Your task to perform on an android device: turn on javascript in the chrome app Image 0: 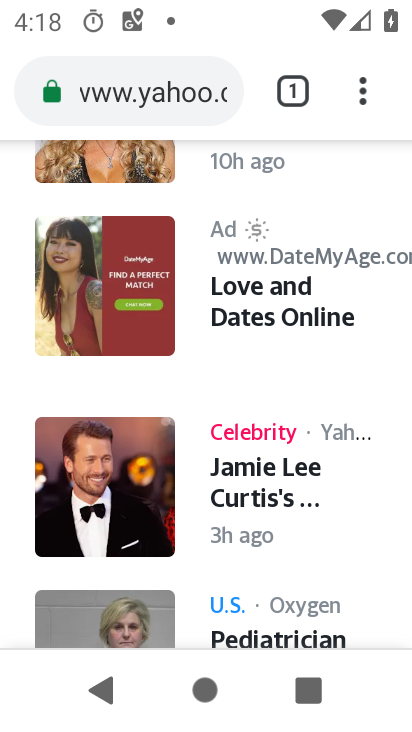
Step 0: press home button
Your task to perform on an android device: turn on javascript in the chrome app Image 1: 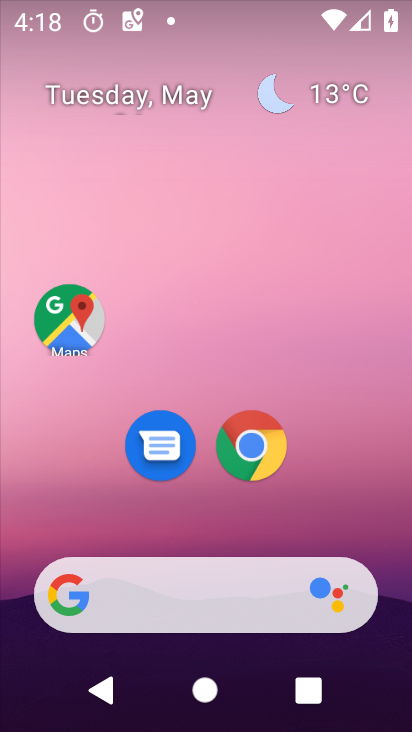
Step 1: click (247, 436)
Your task to perform on an android device: turn on javascript in the chrome app Image 2: 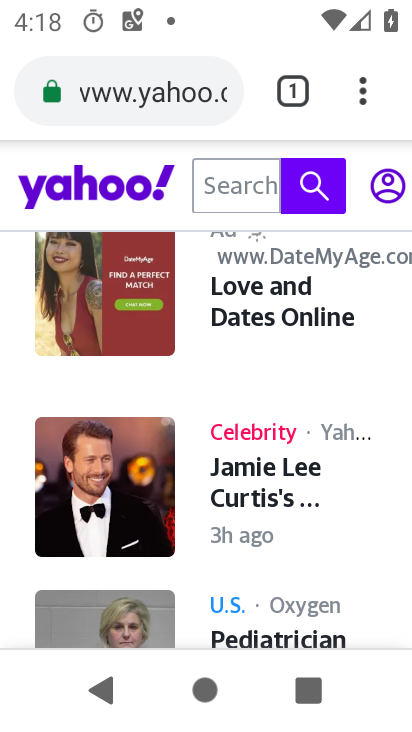
Step 2: click (368, 89)
Your task to perform on an android device: turn on javascript in the chrome app Image 3: 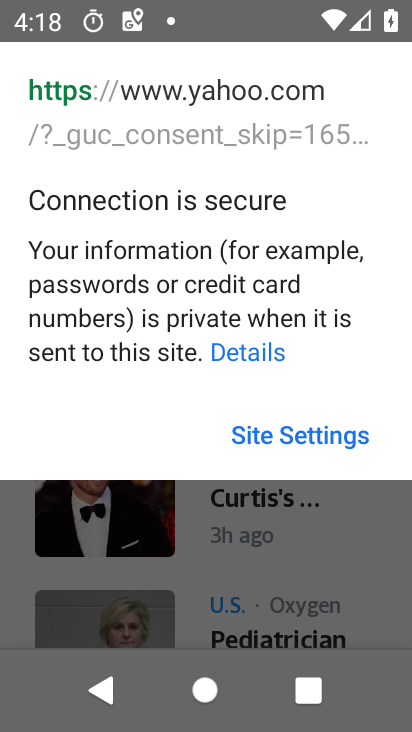
Step 3: click (185, 590)
Your task to perform on an android device: turn on javascript in the chrome app Image 4: 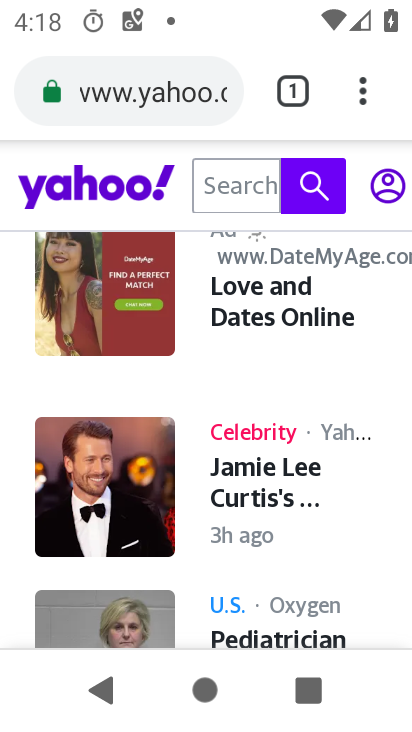
Step 4: click (360, 90)
Your task to perform on an android device: turn on javascript in the chrome app Image 5: 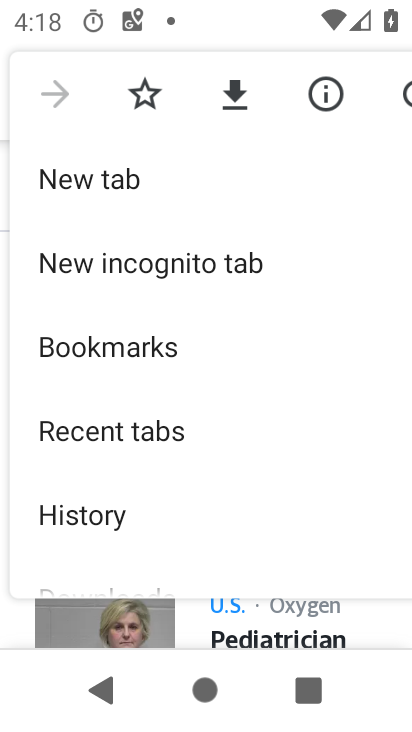
Step 5: drag from (142, 530) to (143, 99)
Your task to perform on an android device: turn on javascript in the chrome app Image 6: 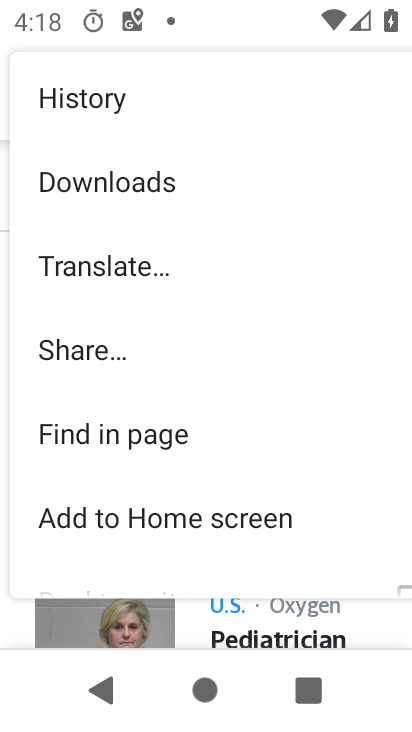
Step 6: drag from (220, 508) to (250, 138)
Your task to perform on an android device: turn on javascript in the chrome app Image 7: 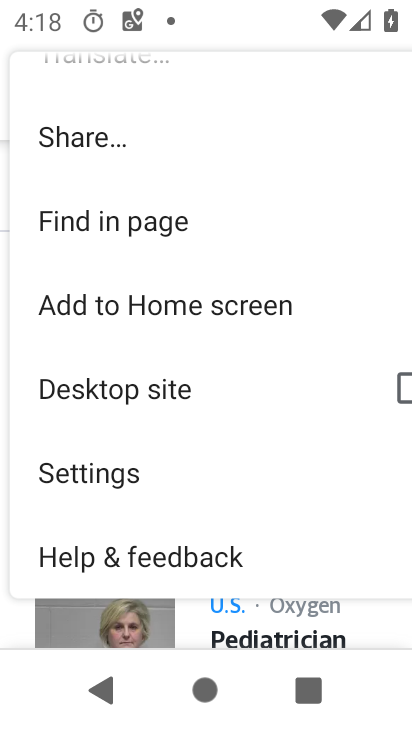
Step 7: click (152, 474)
Your task to perform on an android device: turn on javascript in the chrome app Image 8: 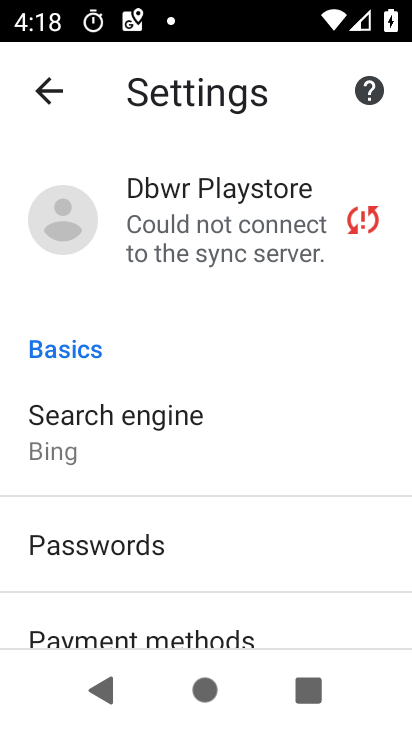
Step 8: drag from (203, 604) to (190, 340)
Your task to perform on an android device: turn on javascript in the chrome app Image 9: 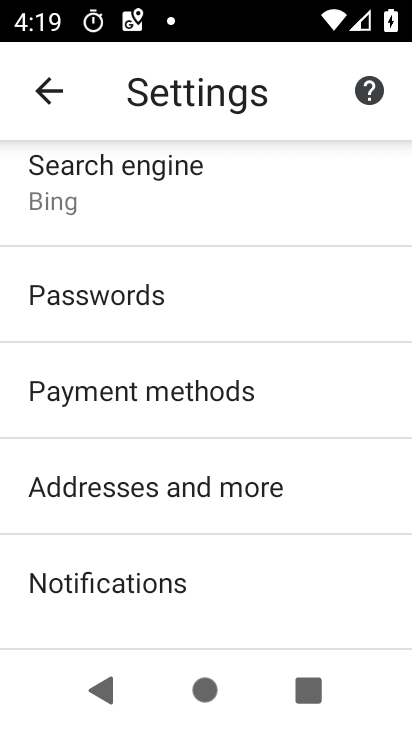
Step 9: drag from (203, 587) to (191, 210)
Your task to perform on an android device: turn on javascript in the chrome app Image 10: 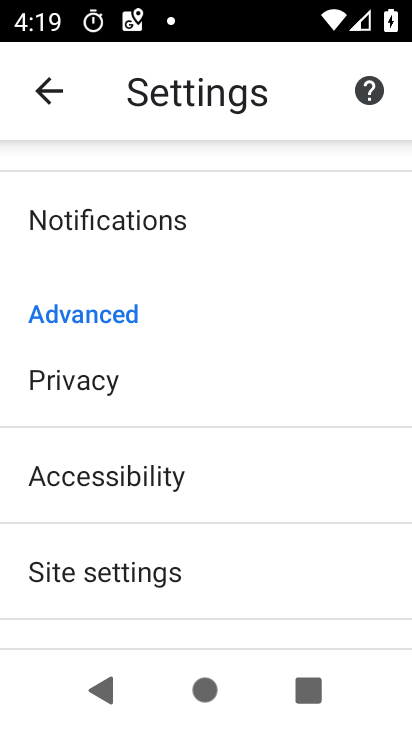
Step 10: click (198, 570)
Your task to perform on an android device: turn on javascript in the chrome app Image 11: 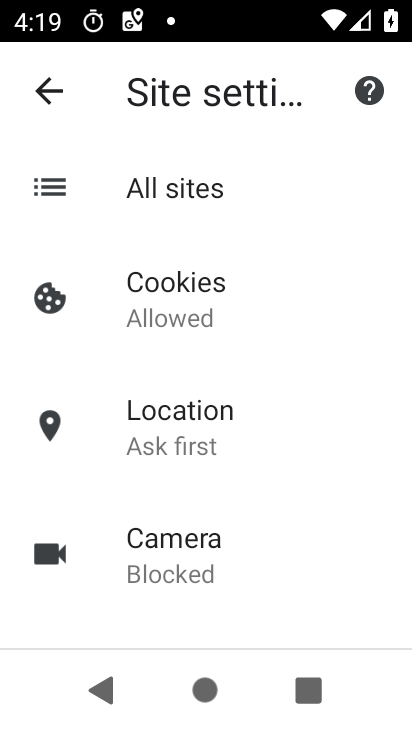
Step 11: drag from (242, 573) to (251, 137)
Your task to perform on an android device: turn on javascript in the chrome app Image 12: 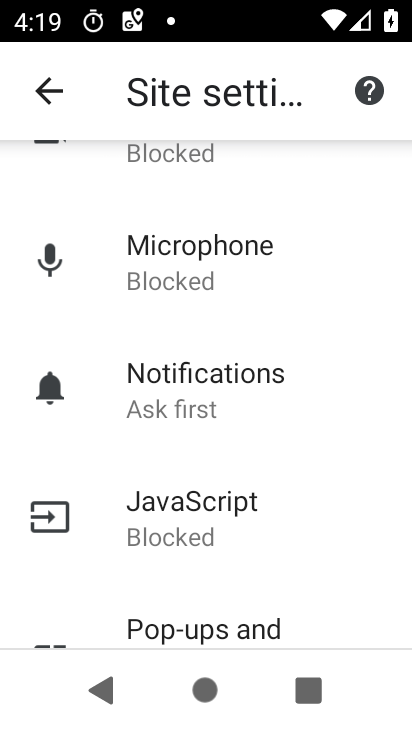
Step 12: click (227, 517)
Your task to perform on an android device: turn on javascript in the chrome app Image 13: 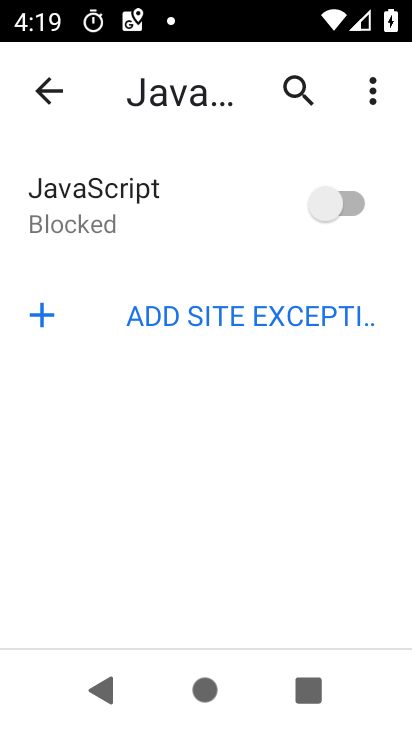
Step 13: click (351, 199)
Your task to perform on an android device: turn on javascript in the chrome app Image 14: 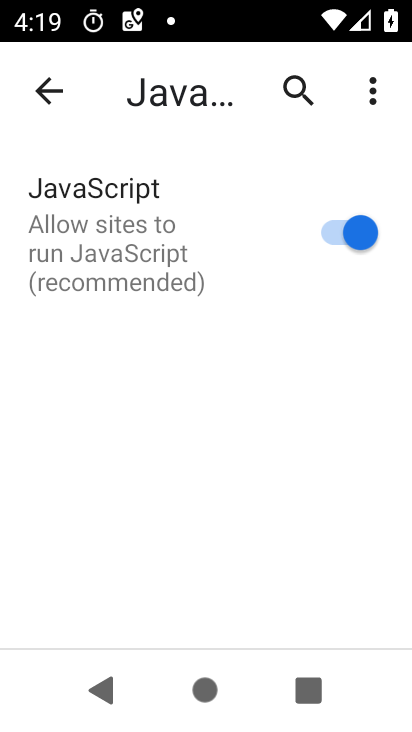
Step 14: task complete